Your task to perform on an android device: remove spam from my inbox in the gmail app Image 0: 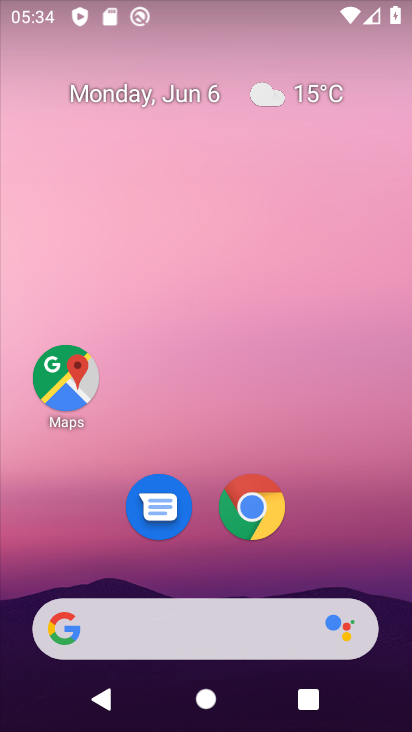
Step 0: drag from (194, 572) to (215, 2)
Your task to perform on an android device: remove spam from my inbox in the gmail app Image 1: 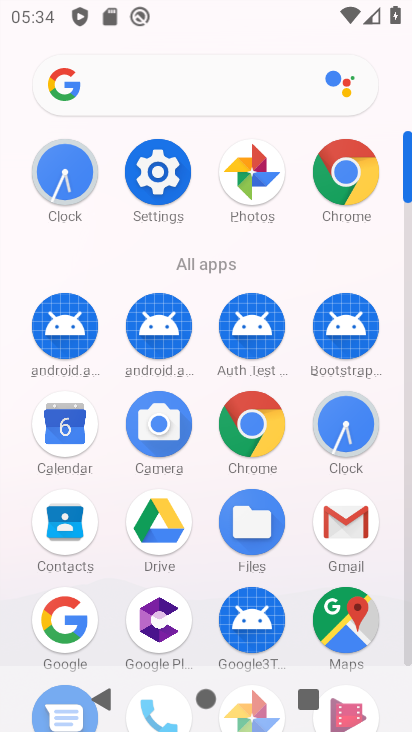
Step 1: click (333, 534)
Your task to perform on an android device: remove spam from my inbox in the gmail app Image 2: 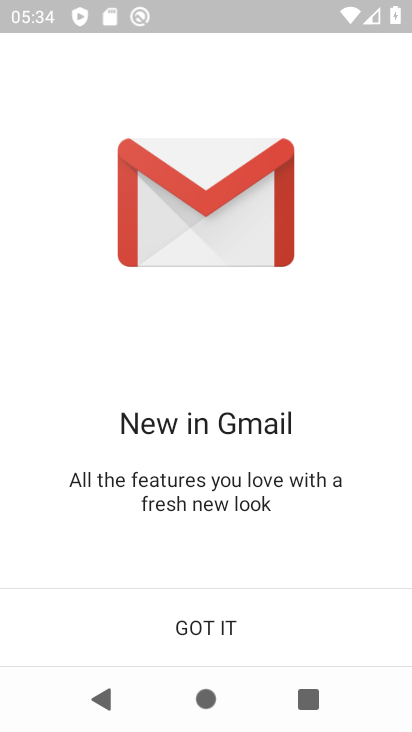
Step 2: click (264, 602)
Your task to perform on an android device: remove spam from my inbox in the gmail app Image 3: 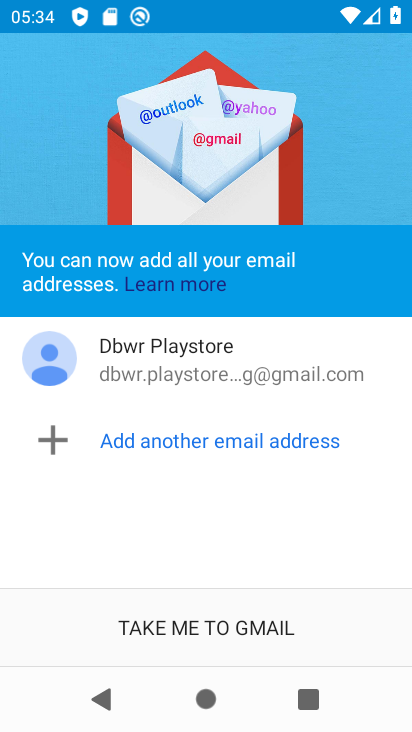
Step 3: click (196, 631)
Your task to perform on an android device: remove spam from my inbox in the gmail app Image 4: 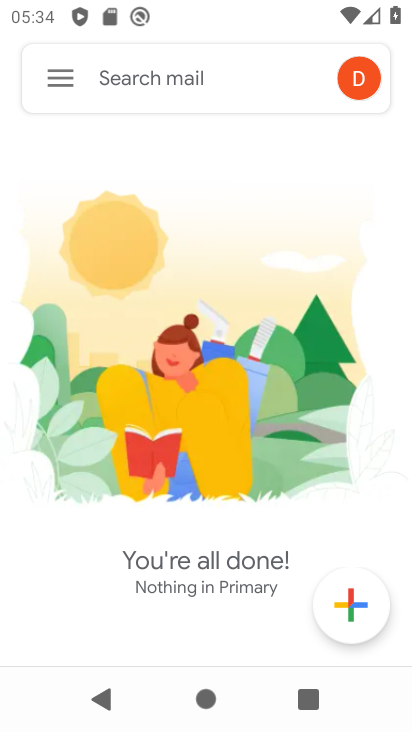
Step 4: click (65, 76)
Your task to perform on an android device: remove spam from my inbox in the gmail app Image 5: 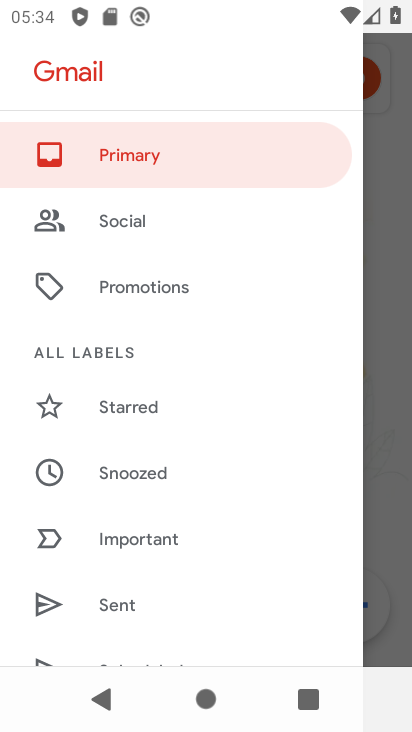
Step 5: drag from (137, 583) to (92, 9)
Your task to perform on an android device: remove spam from my inbox in the gmail app Image 6: 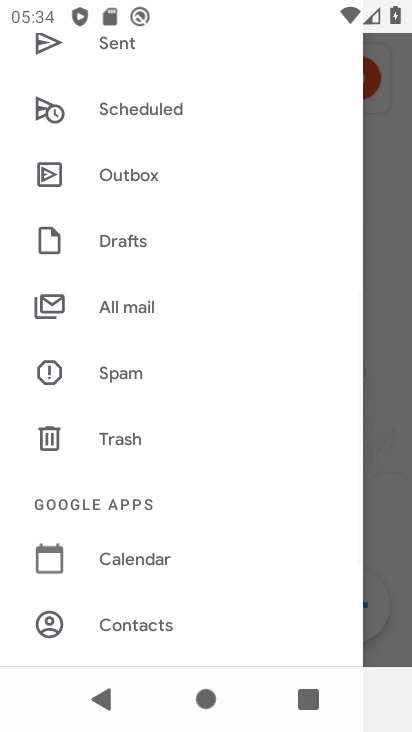
Step 6: click (108, 382)
Your task to perform on an android device: remove spam from my inbox in the gmail app Image 7: 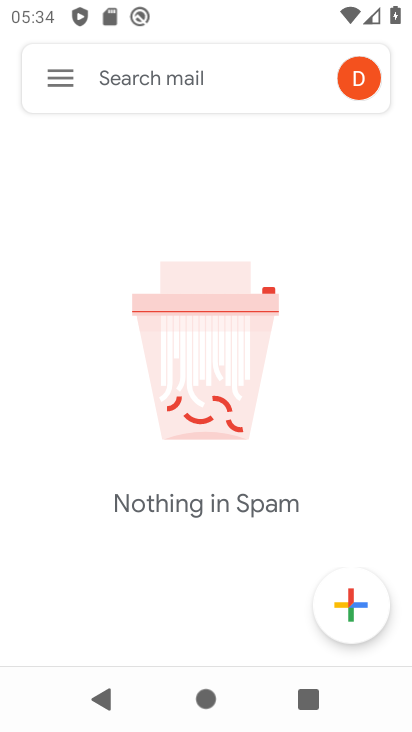
Step 7: task complete